Your task to perform on an android device: turn pop-ups on in chrome Image 0: 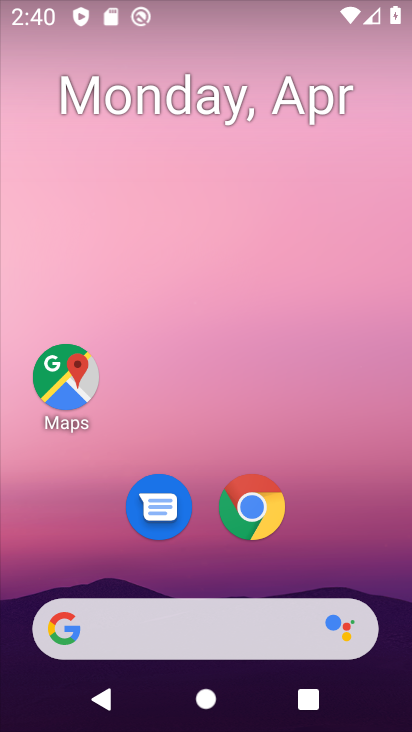
Step 0: click (244, 524)
Your task to perform on an android device: turn pop-ups on in chrome Image 1: 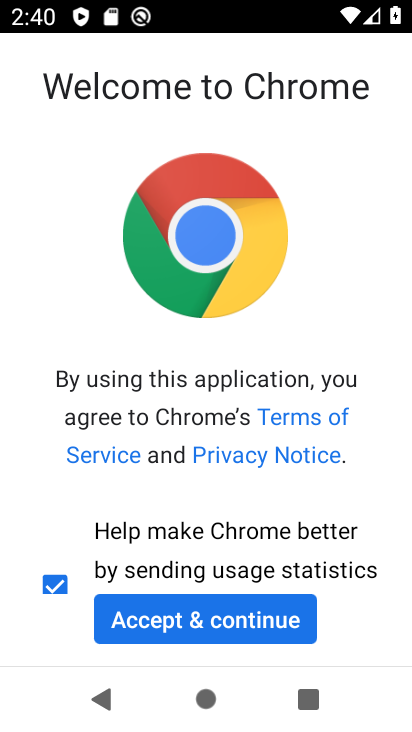
Step 1: click (255, 625)
Your task to perform on an android device: turn pop-ups on in chrome Image 2: 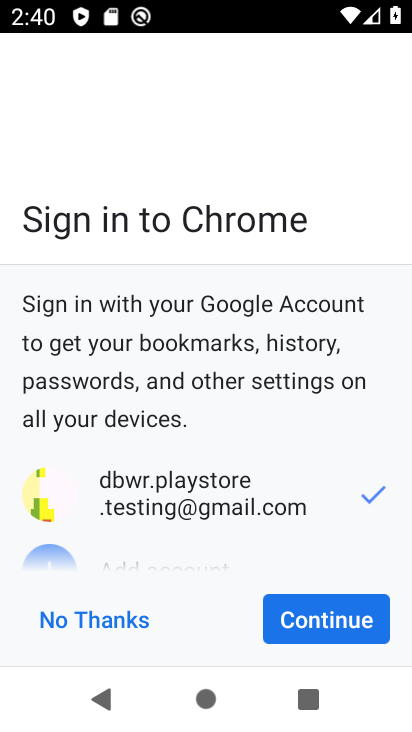
Step 2: click (292, 622)
Your task to perform on an android device: turn pop-ups on in chrome Image 3: 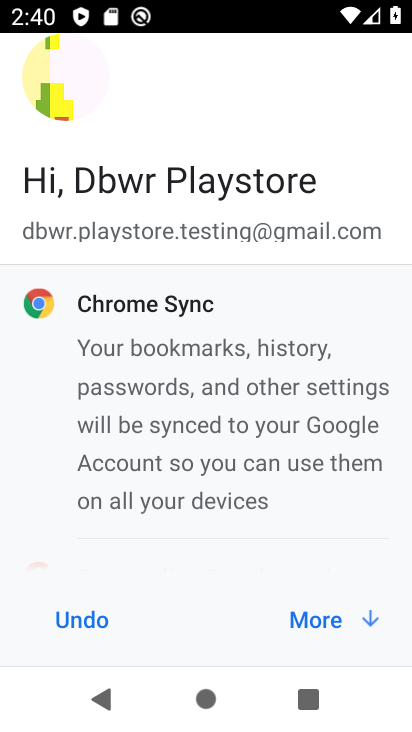
Step 3: click (292, 622)
Your task to perform on an android device: turn pop-ups on in chrome Image 4: 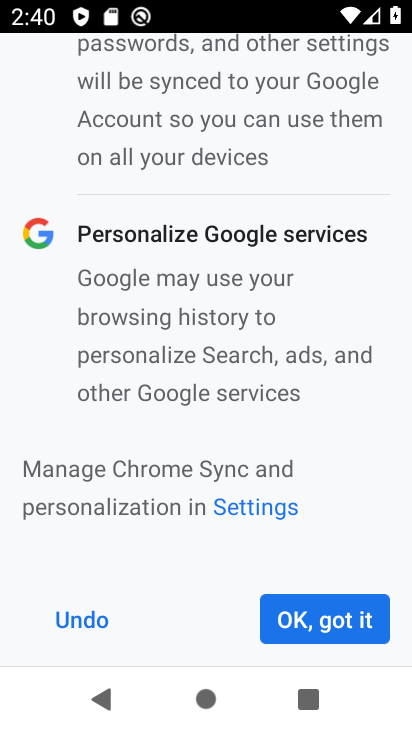
Step 4: click (292, 622)
Your task to perform on an android device: turn pop-ups on in chrome Image 5: 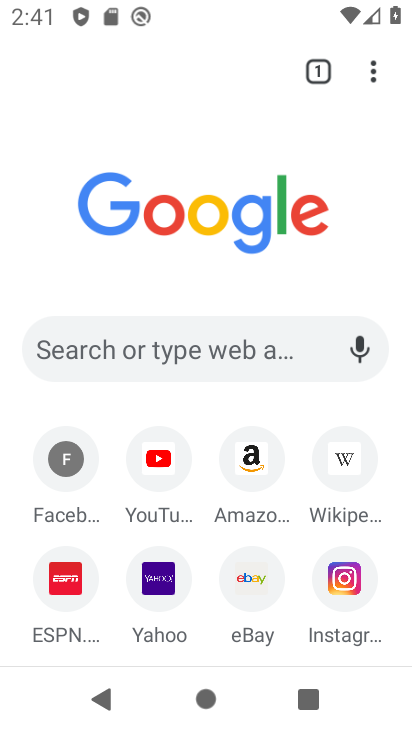
Step 5: drag from (385, 105) to (216, 498)
Your task to perform on an android device: turn pop-ups on in chrome Image 6: 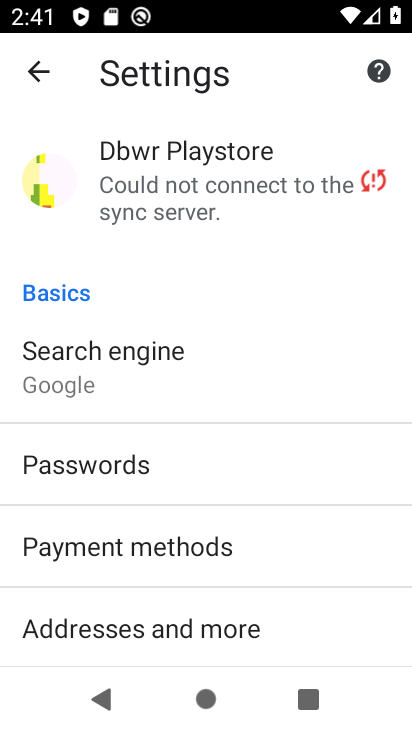
Step 6: drag from (332, 611) to (233, 132)
Your task to perform on an android device: turn pop-ups on in chrome Image 7: 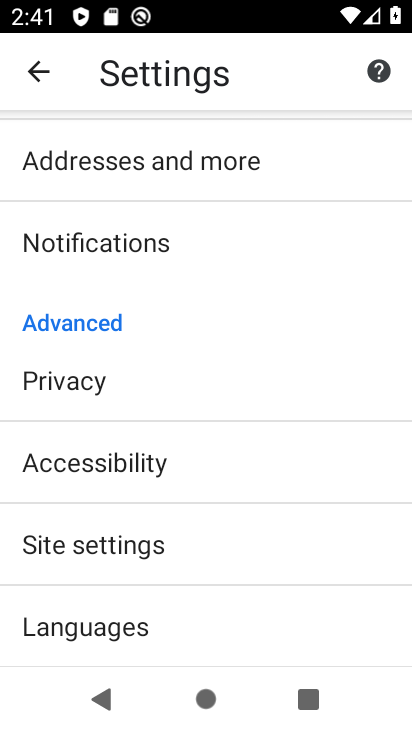
Step 7: drag from (288, 509) to (235, 129)
Your task to perform on an android device: turn pop-ups on in chrome Image 8: 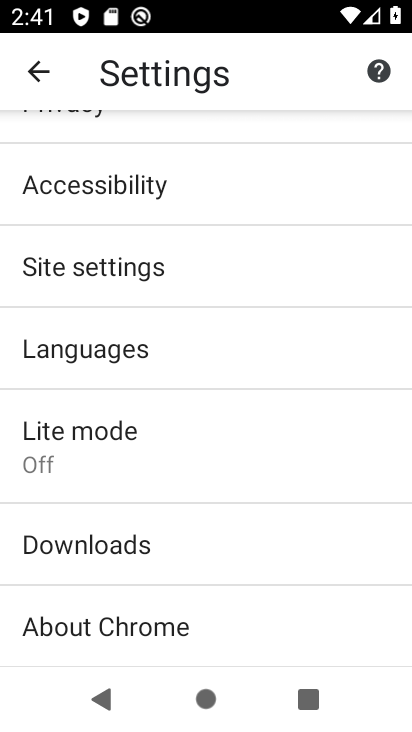
Step 8: click (266, 279)
Your task to perform on an android device: turn pop-ups on in chrome Image 9: 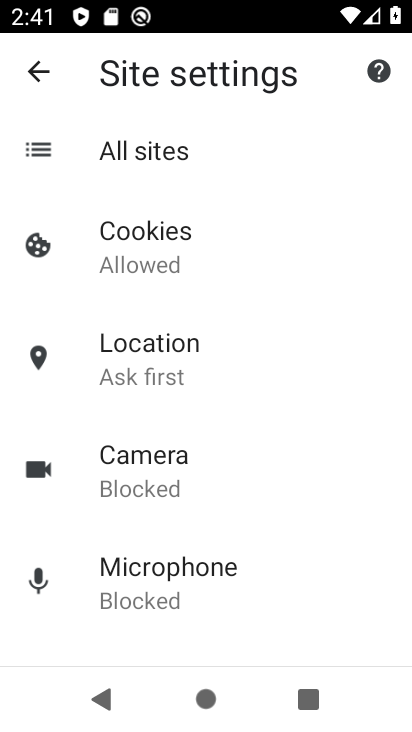
Step 9: drag from (286, 635) to (266, 265)
Your task to perform on an android device: turn pop-ups on in chrome Image 10: 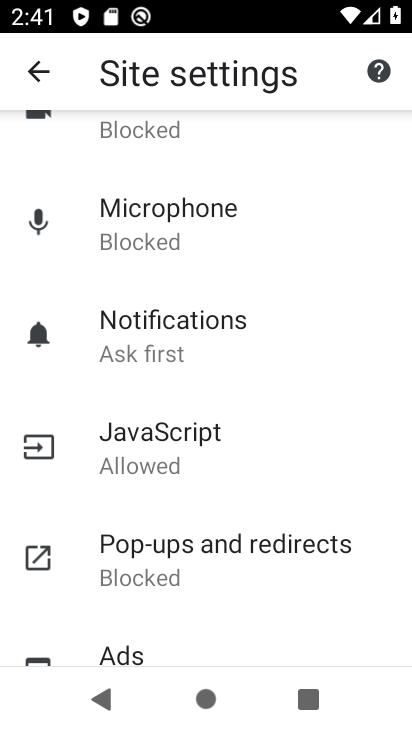
Step 10: click (282, 530)
Your task to perform on an android device: turn pop-ups on in chrome Image 11: 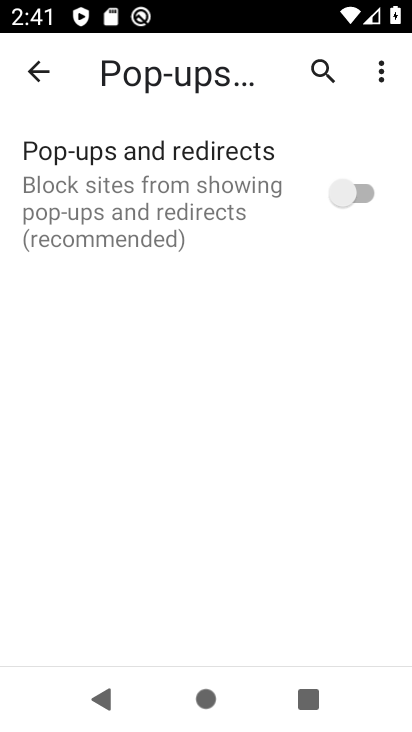
Step 11: click (362, 233)
Your task to perform on an android device: turn pop-ups on in chrome Image 12: 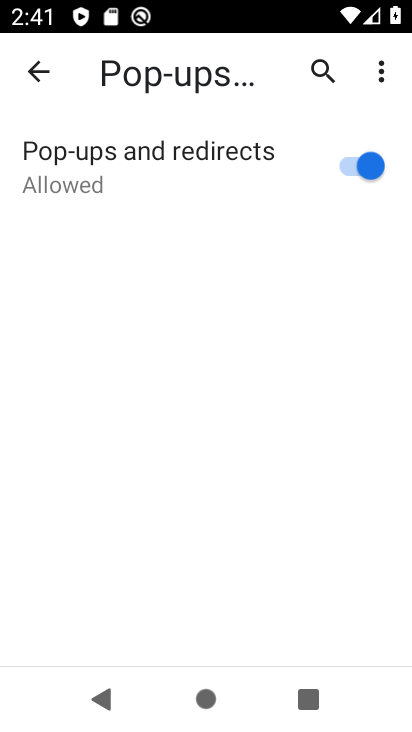
Step 12: task complete